Your task to perform on an android device: toggle priority inbox in the gmail app Image 0: 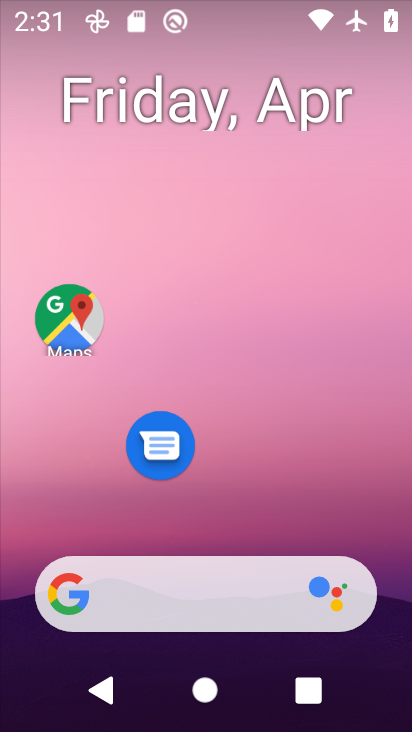
Step 0: drag from (274, 505) to (282, 95)
Your task to perform on an android device: toggle priority inbox in the gmail app Image 1: 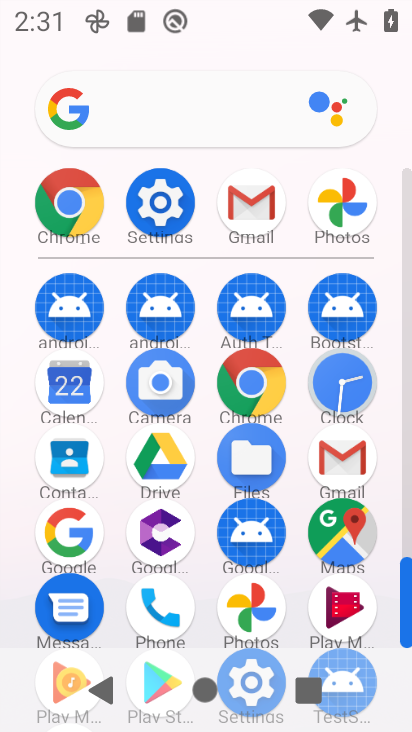
Step 1: click (333, 458)
Your task to perform on an android device: toggle priority inbox in the gmail app Image 2: 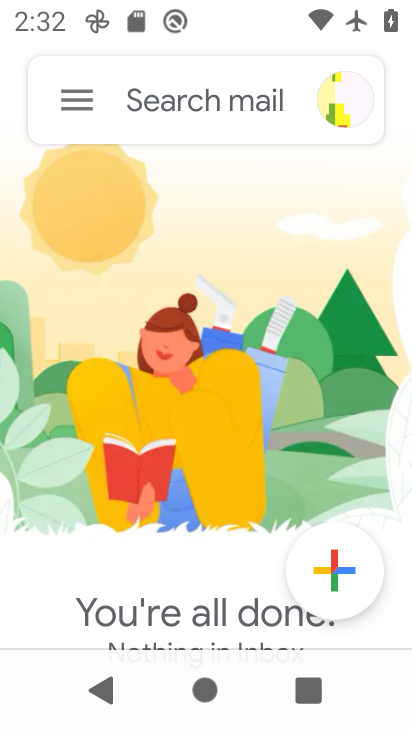
Step 2: click (83, 106)
Your task to perform on an android device: toggle priority inbox in the gmail app Image 3: 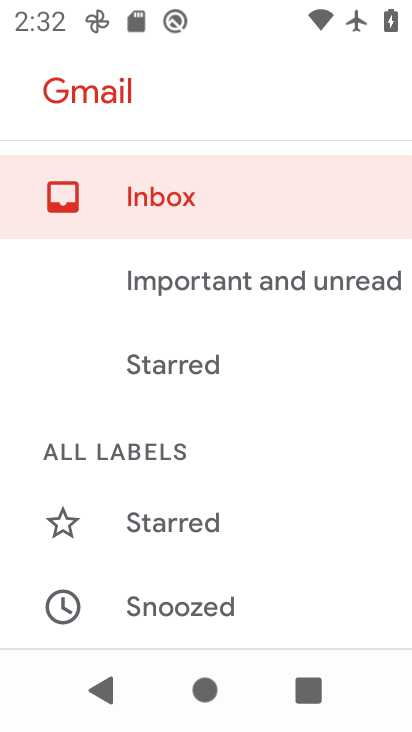
Step 3: drag from (211, 461) to (229, 268)
Your task to perform on an android device: toggle priority inbox in the gmail app Image 4: 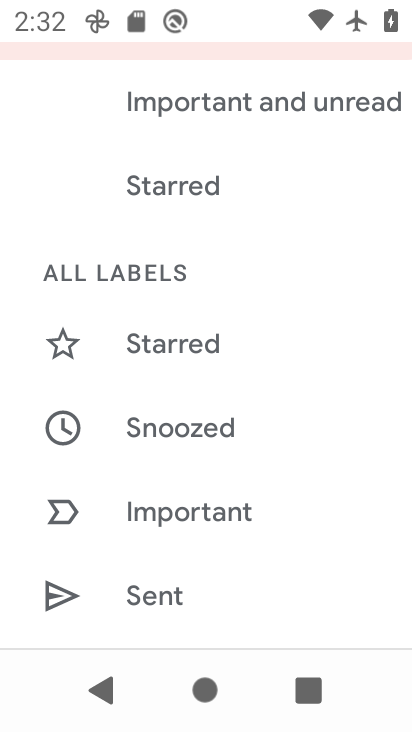
Step 4: drag from (218, 476) to (228, 377)
Your task to perform on an android device: toggle priority inbox in the gmail app Image 5: 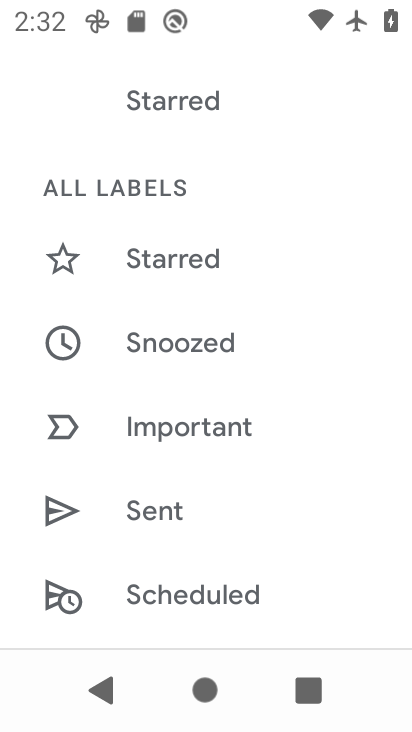
Step 5: drag from (222, 537) to (220, 427)
Your task to perform on an android device: toggle priority inbox in the gmail app Image 6: 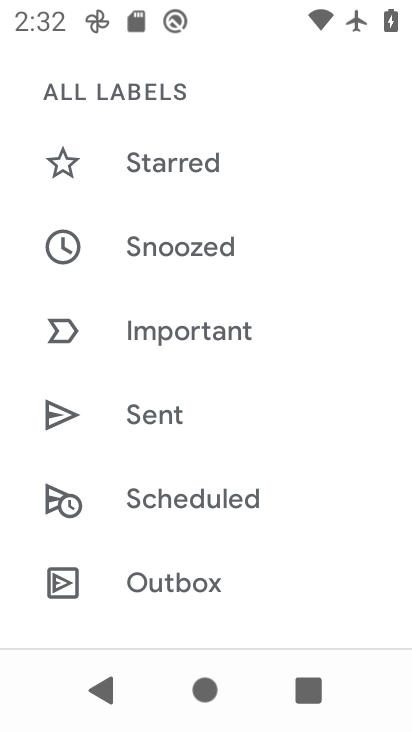
Step 6: drag from (225, 596) to (238, 470)
Your task to perform on an android device: toggle priority inbox in the gmail app Image 7: 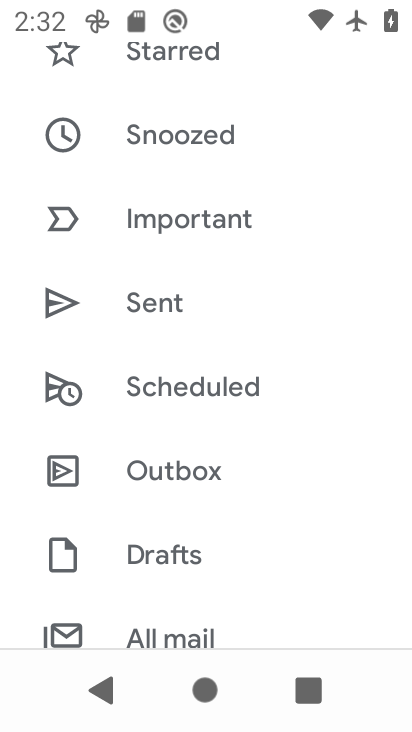
Step 7: drag from (235, 553) to (237, 460)
Your task to perform on an android device: toggle priority inbox in the gmail app Image 8: 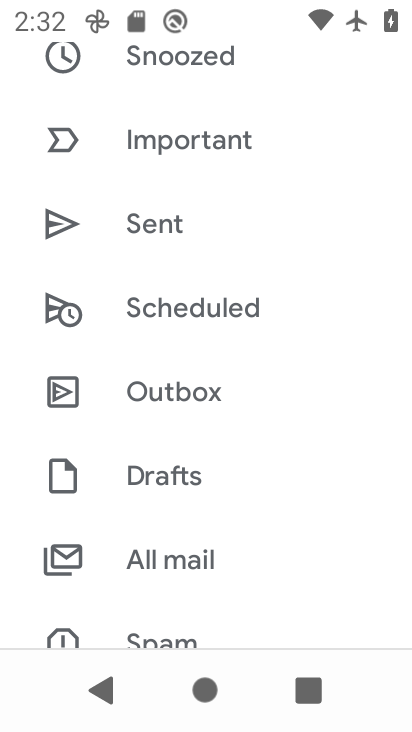
Step 8: drag from (235, 536) to (248, 415)
Your task to perform on an android device: toggle priority inbox in the gmail app Image 9: 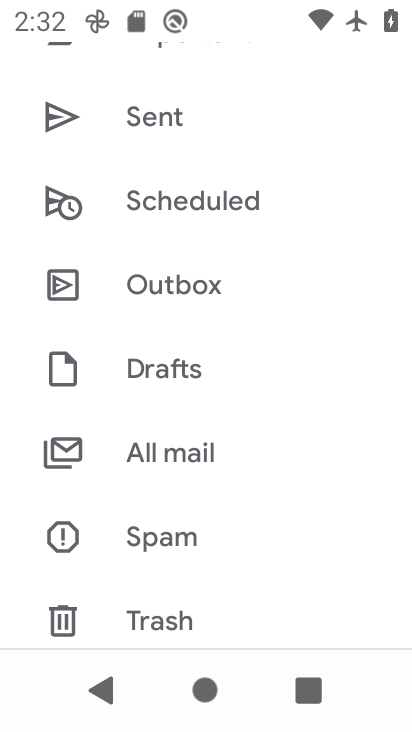
Step 9: drag from (248, 546) to (253, 419)
Your task to perform on an android device: toggle priority inbox in the gmail app Image 10: 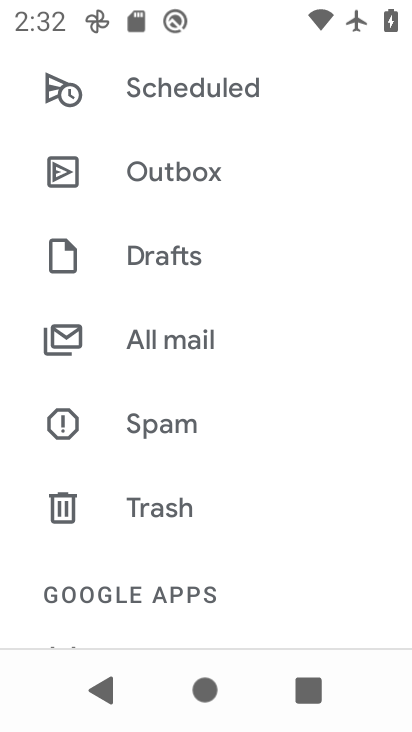
Step 10: drag from (261, 503) to (272, 408)
Your task to perform on an android device: toggle priority inbox in the gmail app Image 11: 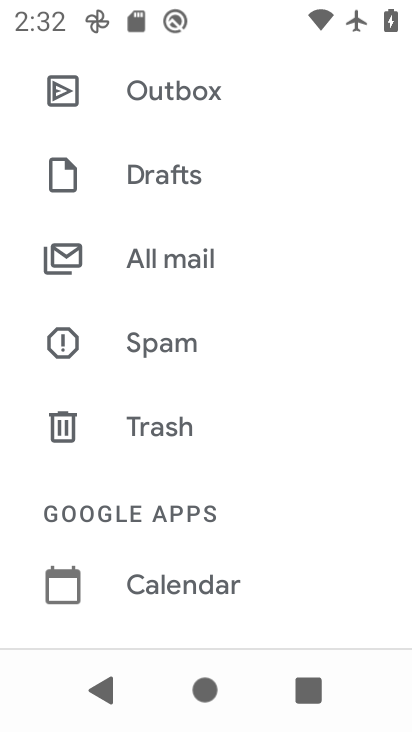
Step 11: drag from (247, 523) to (267, 378)
Your task to perform on an android device: toggle priority inbox in the gmail app Image 12: 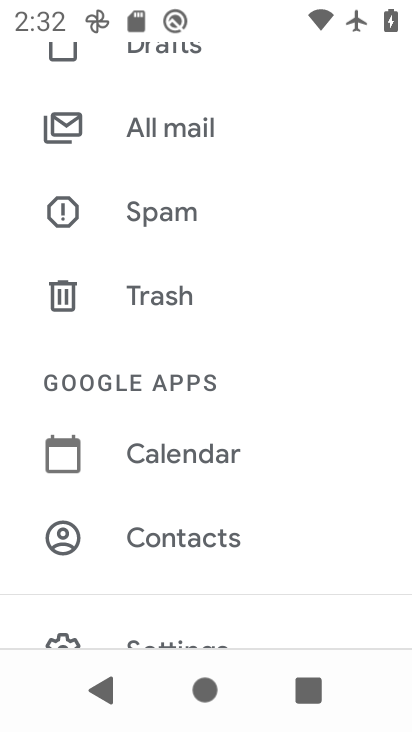
Step 12: drag from (255, 481) to (301, 329)
Your task to perform on an android device: toggle priority inbox in the gmail app Image 13: 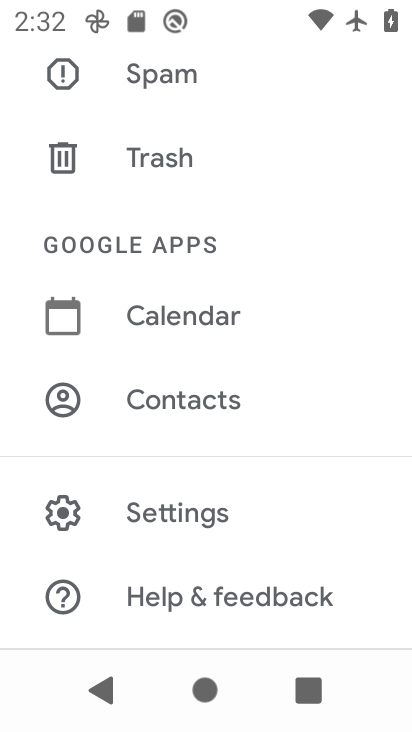
Step 13: click (238, 520)
Your task to perform on an android device: toggle priority inbox in the gmail app Image 14: 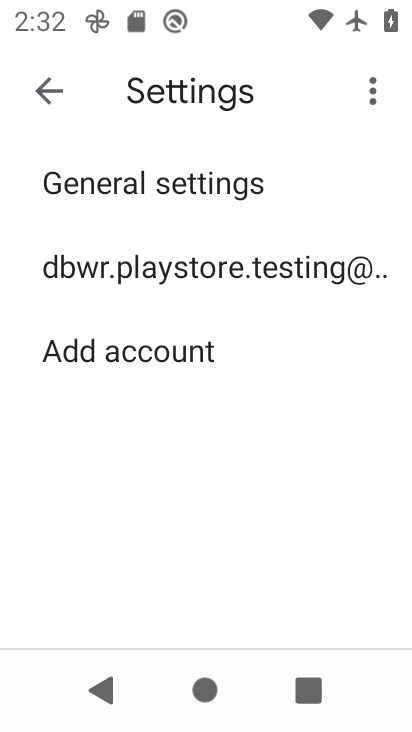
Step 14: click (283, 276)
Your task to perform on an android device: toggle priority inbox in the gmail app Image 15: 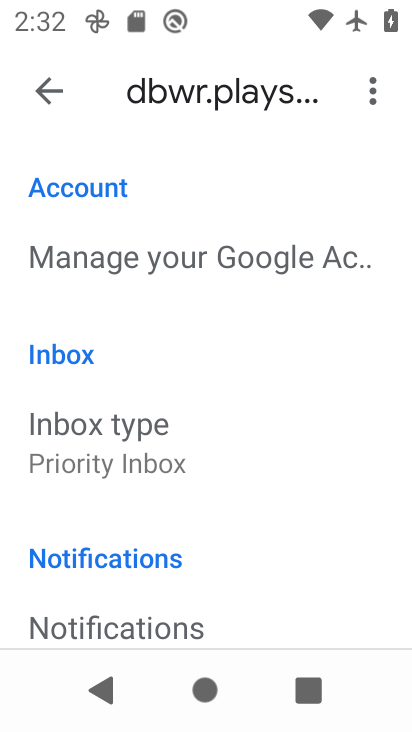
Step 15: click (209, 459)
Your task to perform on an android device: toggle priority inbox in the gmail app Image 16: 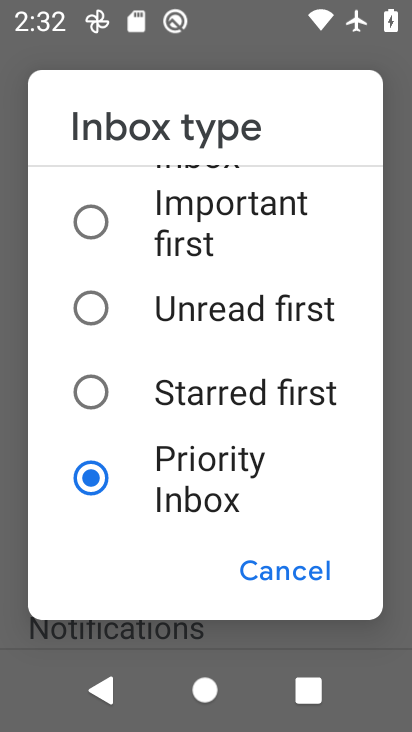
Step 16: drag from (264, 297) to (242, 448)
Your task to perform on an android device: toggle priority inbox in the gmail app Image 17: 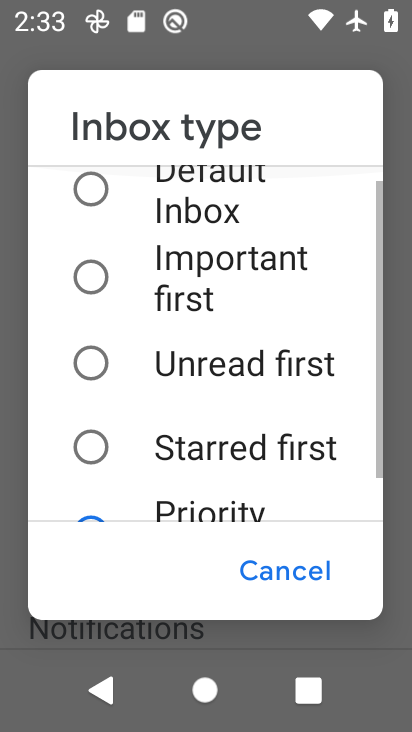
Step 17: click (256, 236)
Your task to perform on an android device: toggle priority inbox in the gmail app Image 18: 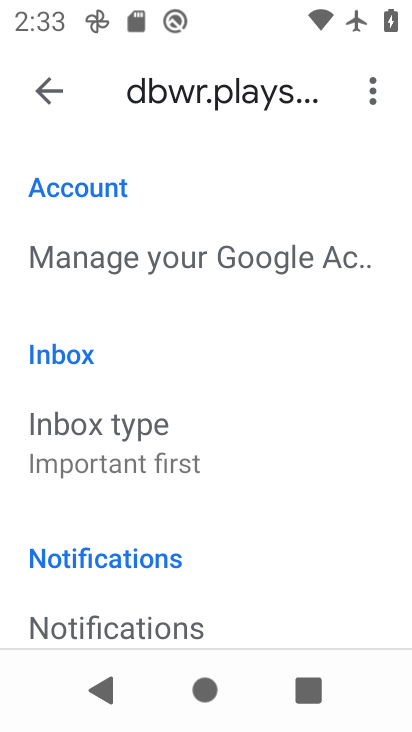
Step 18: task complete